Your task to perform on an android device: Open Google Maps Image 0: 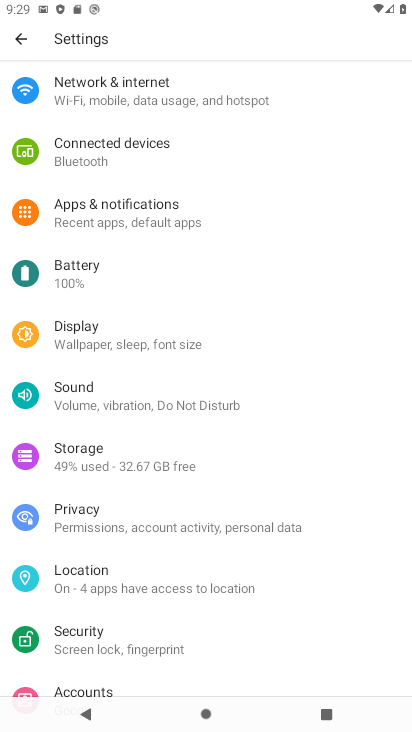
Step 0: press home button
Your task to perform on an android device: Open Google Maps Image 1: 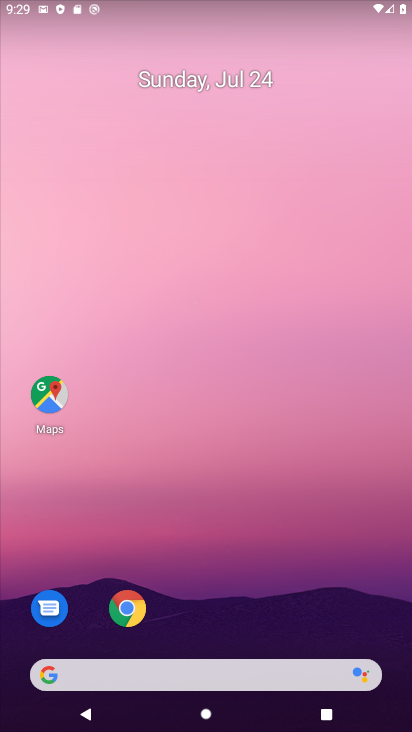
Step 1: click (50, 387)
Your task to perform on an android device: Open Google Maps Image 2: 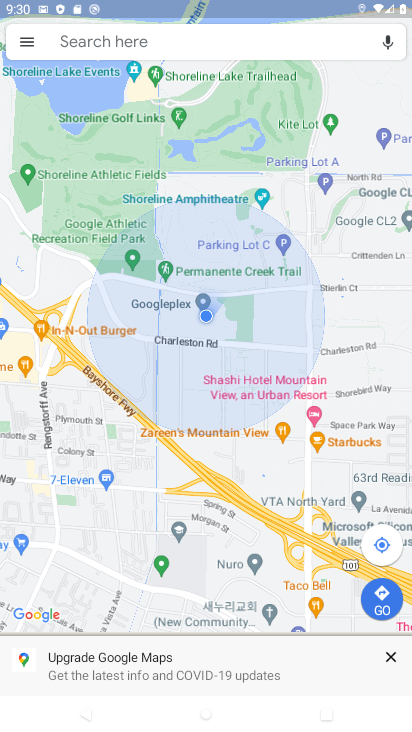
Step 2: task complete